Your task to perform on an android device: find which apps use the phone's location Image 0: 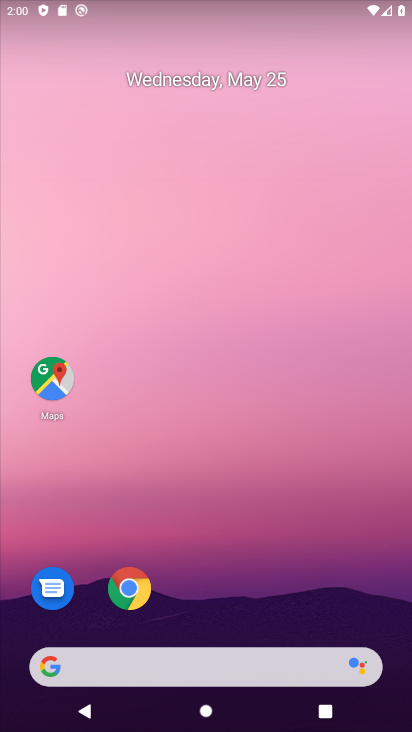
Step 0: drag from (184, 449) to (191, 48)
Your task to perform on an android device: find which apps use the phone's location Image 1: 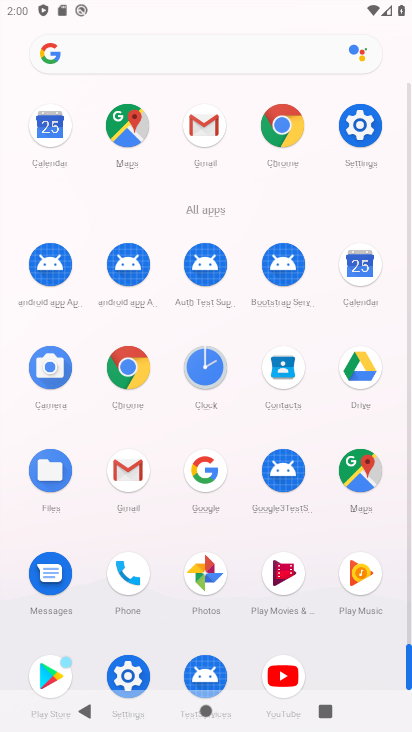
Step 1: drag from (12, 537) to (12, 241)
Your task to perform on an android device: find which apps use the phone's location Image 2: 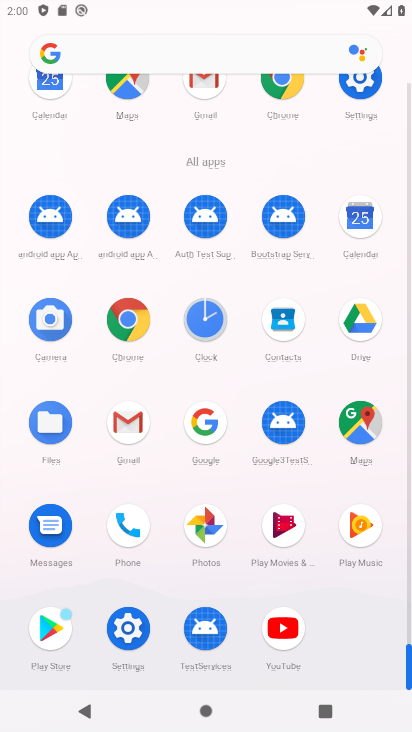
Step 2: click (128, 621)
Your task to perform on an android device: find which apps use the phone's location Image 3: 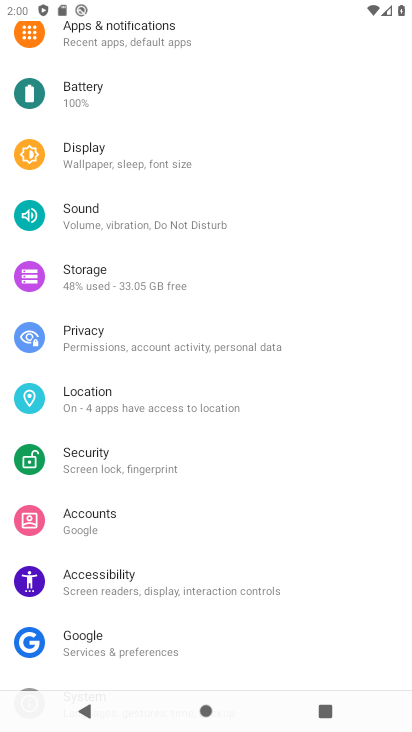
Step 3: drag from (197, 149) to (206, 575)
Your task to perform on an android device: find which apps use the phone's location Image 4: 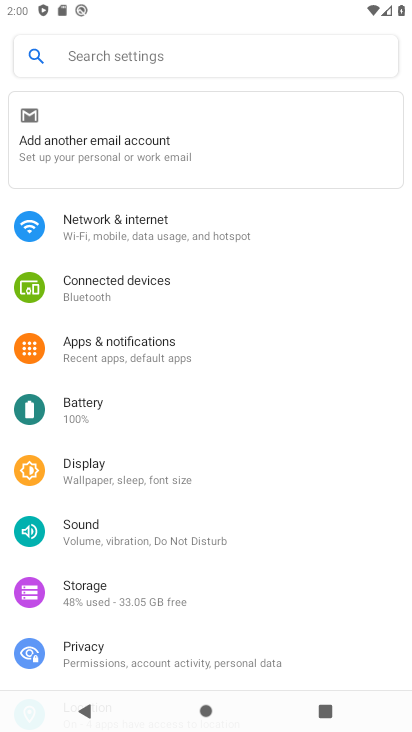
Step 4: drag from (246, 533) to (233, 162)
Your task to perform on an android device: find which apps use the phone's location Image 5: 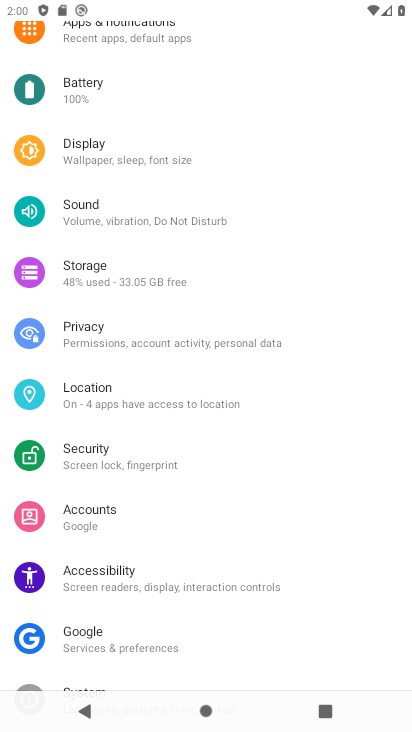
Step 5: click (169, 392)
Your task to perform on an android device: find which apps use the phone's location Image 6: 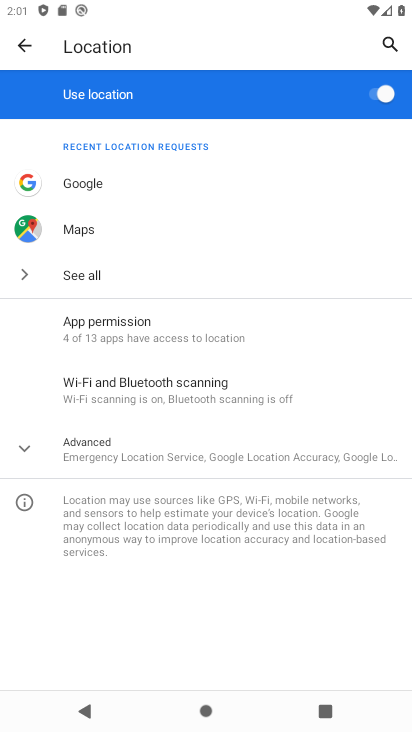
Step 6: click (185, 325)
Your task to perform on an android device: find which apps use the phone's location Image 7: 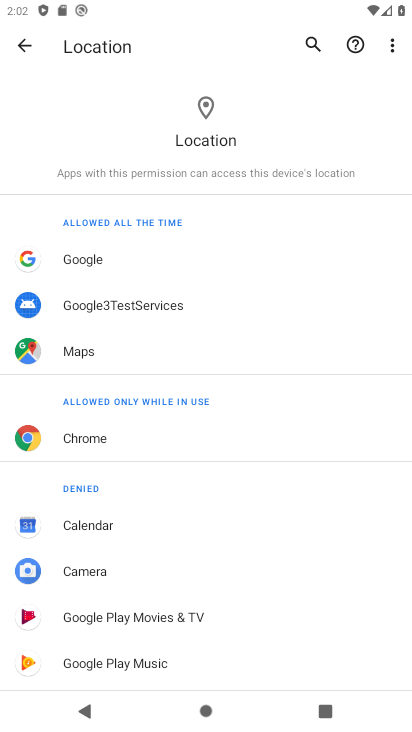
Step 7: task complete